Your task to perform on an android device: turn on javascript in the chrome app Image 0: 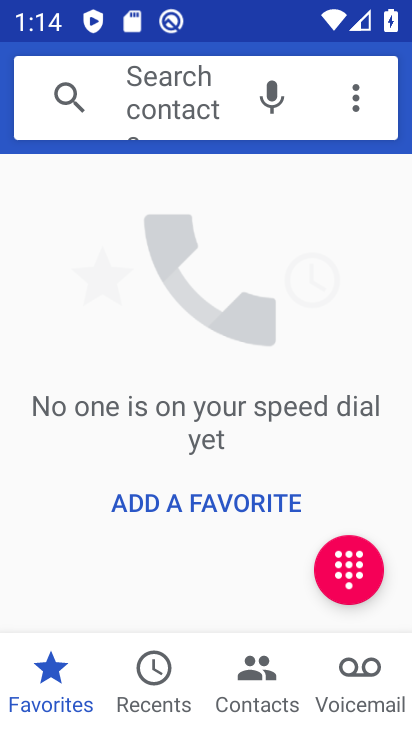
Step 0: press back button
Your task to perform on an android device: turn on javascript in the chrome app Image 1: 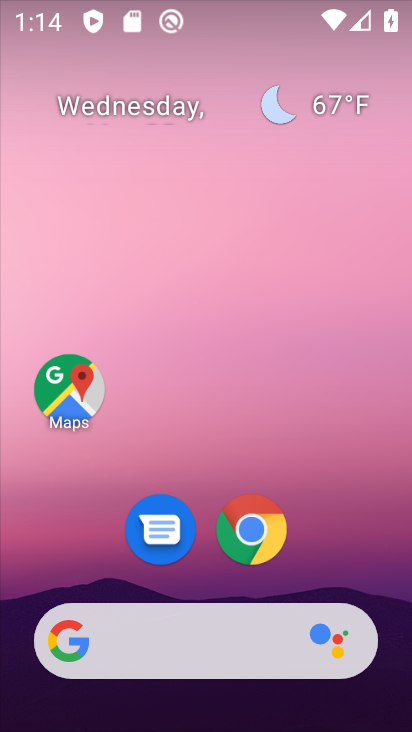
Step 1: click (254, 530)
Your task to perform on an android device: turn on javascript in the chrome app Image 2: 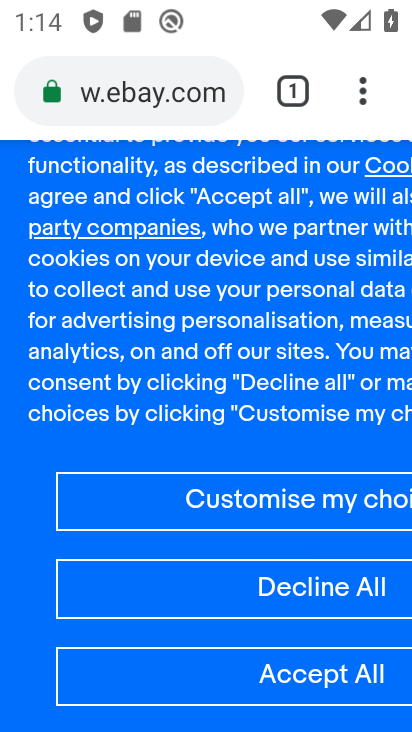
Step 2: click (362, 90)
Your task to perform on an android device: turn on javascript in the chrome app Image 3: 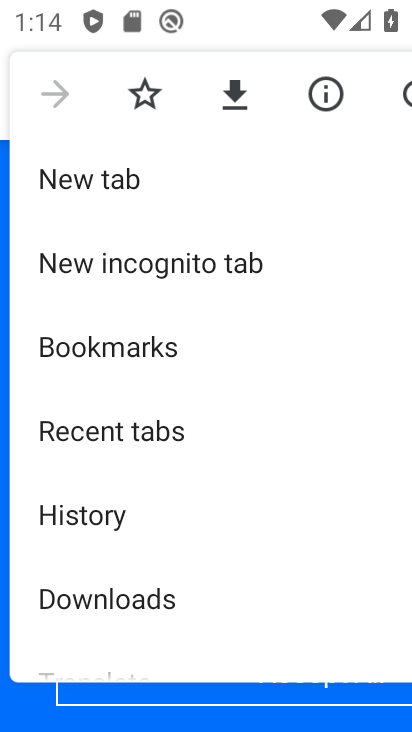
Step 3: drag from (130, 467) to (142, 377)
Your task to perform on an android device: turn on javascript in the chrome app Image 4: 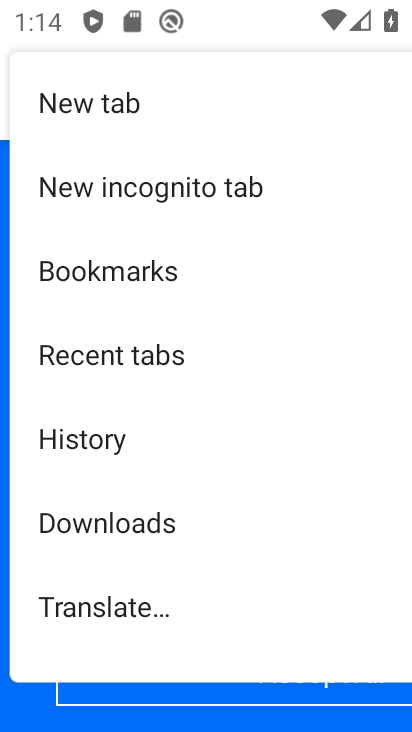
Step 4: drag from (99, 477) to (127, 392)
Your task to perform on an android device: turn on javascript in the chrome app Image 5: 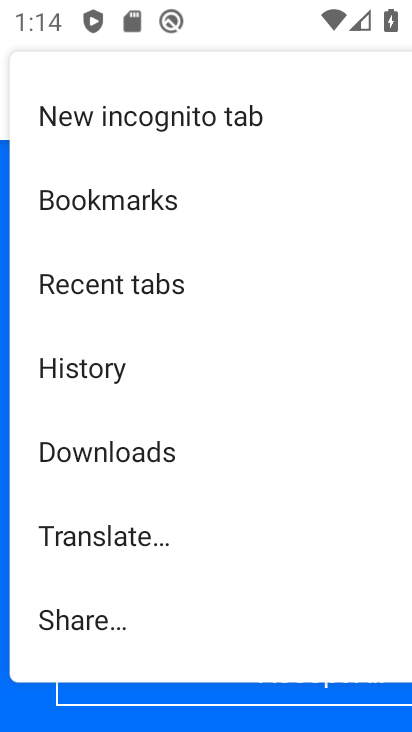
Step 5: drag from (93, 480) to (124, 407)
Your task to perform on an android device: turn on javascript in the chrome app Image 6: 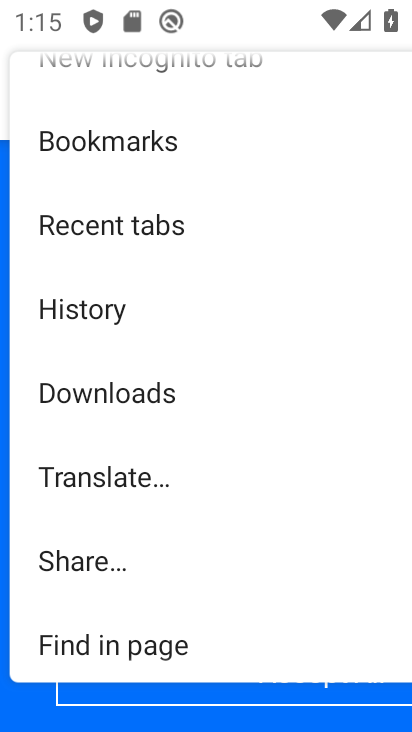
Step 6: drag from (89, 514) to (133, 431)
Your task to perform on an android device: turn on javascript in the chrome app Image 7: 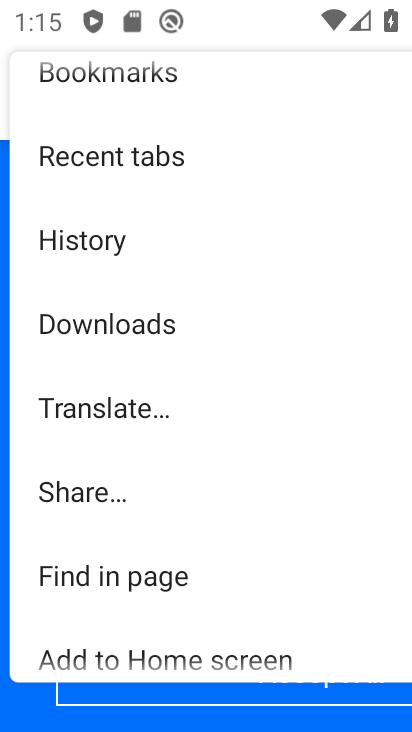
Step 7: drag from (101, 534) to (140, 451)
Your task to perform on an android device: turn on javascript in the chrome app Image 8: 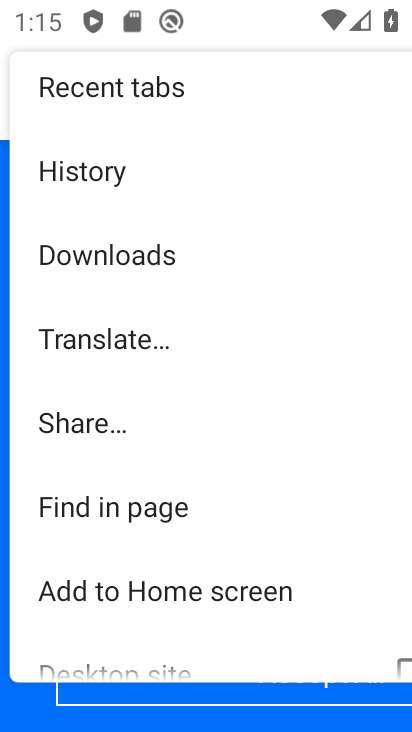
Step 8: drag from (89, 540) to (139, 442)
Your task to perform on an android device: turn on javascript in the chrome app Image 9: 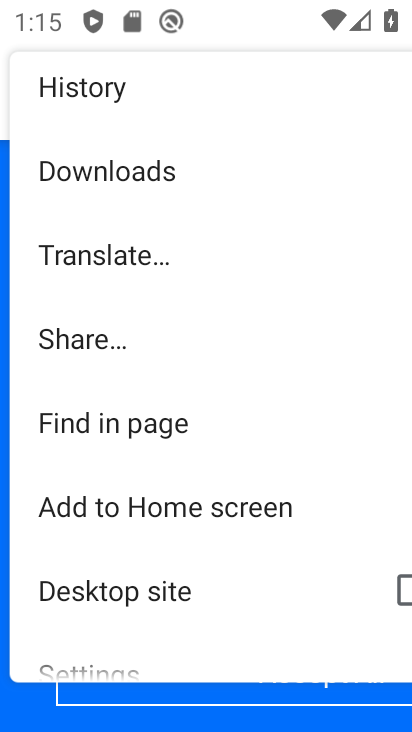
Step 9: drag from (89, 547) to (171, 440)
Your task to perform on an android device: turn on javascript in the chrome app Image 10: 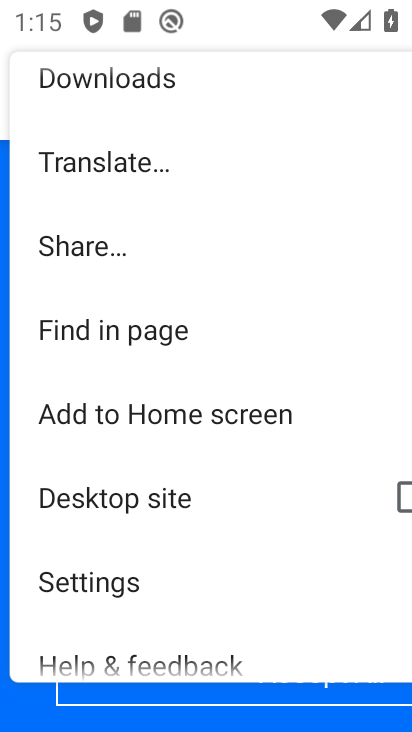
Step 10: click (105, 585)
Your task to perform on an android device: turn on javascript in the chrome app Image 11: 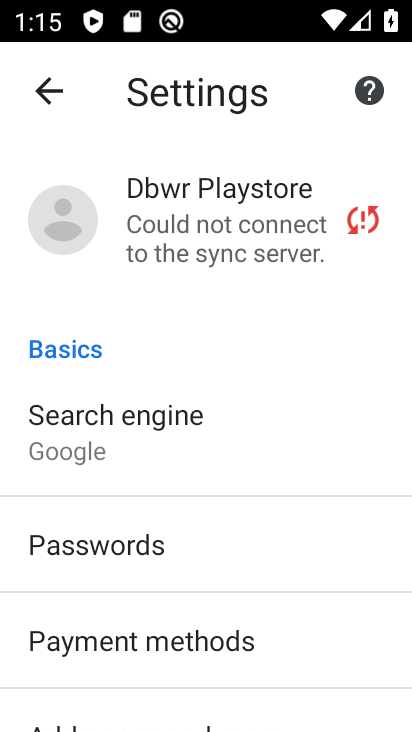
Step 11: drag from (197, 564) to (237, 476)
Your task to perform on an android device: turn on javascript in the chrome app Image 12: 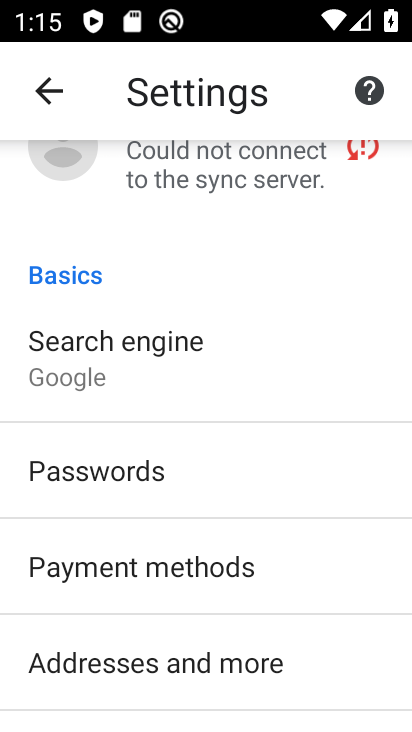
Step 12: drag from (157, 602) to (200, 511)
Your task to perform on an android device: turn on javascript in the chrome app Image 13: 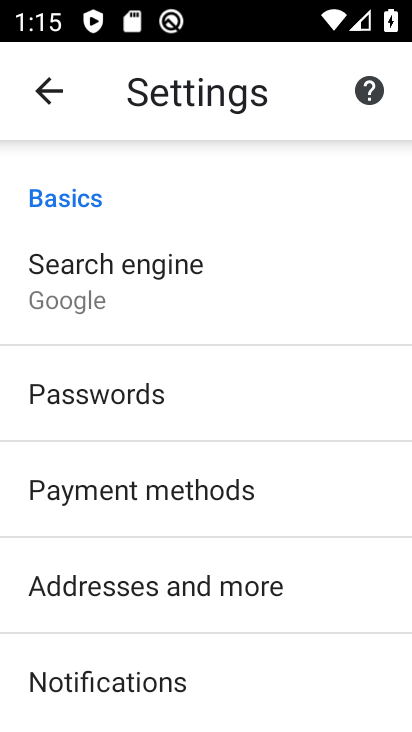
Step 13: drag from (148, 615) to (189, 541)
Your task to perform on an android device: turn on javascript in the chrome app Image 14: 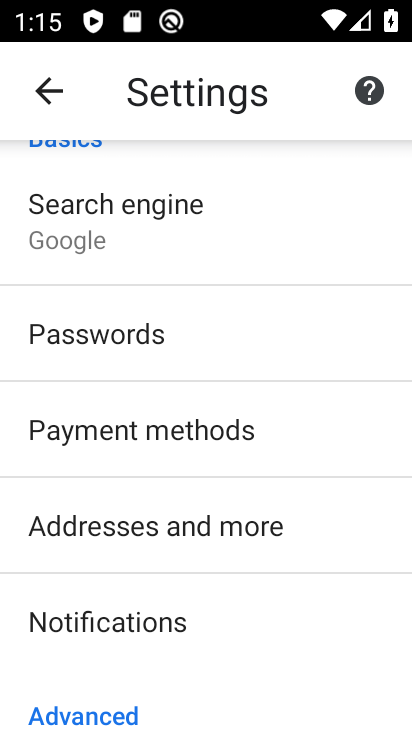
Step 14: drag from (207, 641) to (222, 544)
Your task to perform on an android device: turn on javascript in the chrome app Image 15: 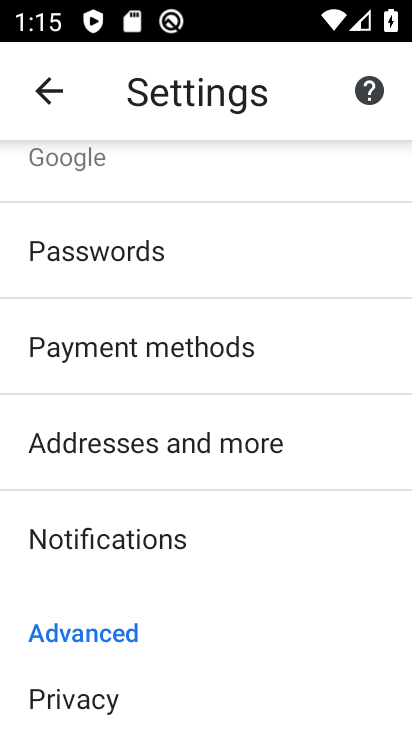
Step 15: drag from (142, 657) to (178, 560)
Your task to perform on an android device: turn on javascript in the chrome app Image 16: 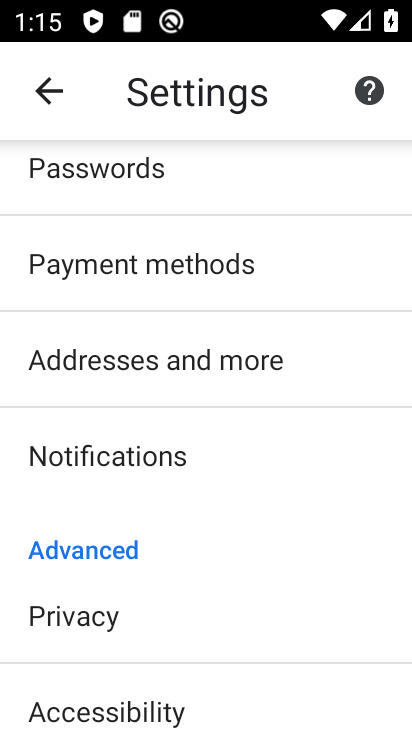
Step 16: drag from (147, 651) to (197, 573)
Your task to perform on an android device: turn on javascript in the chrome app Image 17: 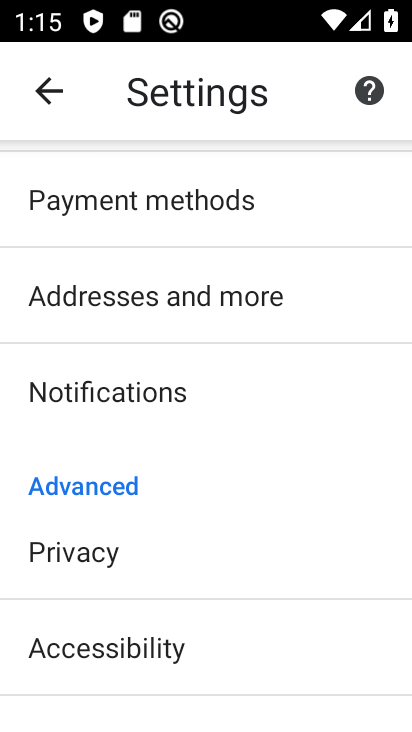
Step 17: drag from (199, 667) to (248, 555)
Your task to perform on an android device: turn on javascript in the chrome app Image 18: 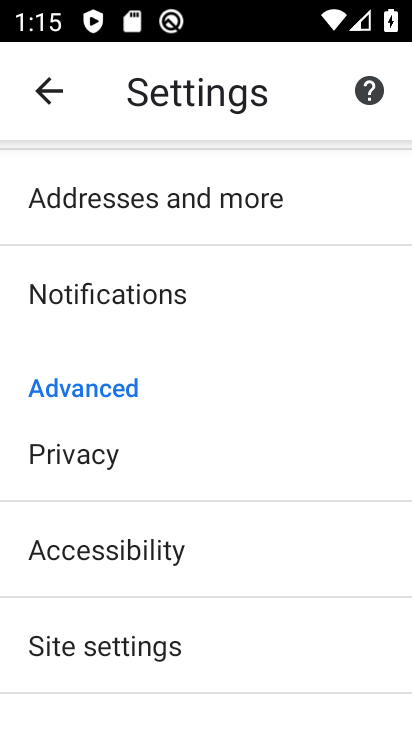
Step 18: click (135, 648)
Your task to perform on an android device: turn on javascript in the chrome app Image 19: 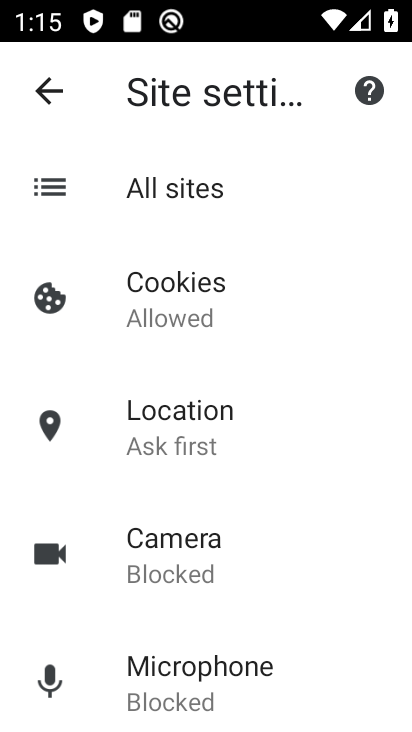
Step 19: drag from (185, 611) to (251, 505)
Your task to perform on an android device: turn on javascript in the chrome app Image 20: 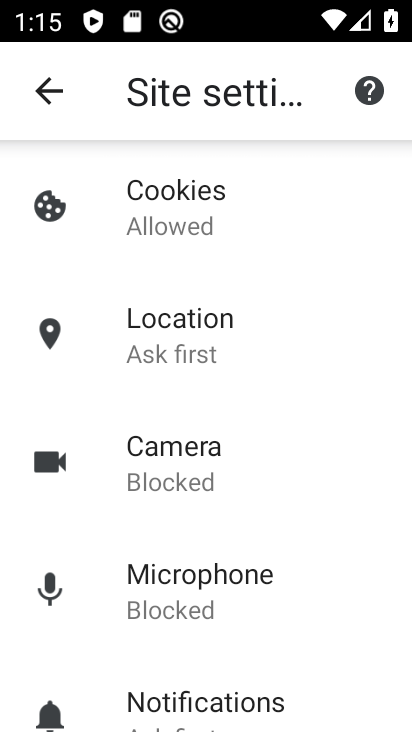
Step 20: drag from (170, 634) to (208, 532)
Your task to perform on an android device: turn on javascript in the chrome app Image 21: 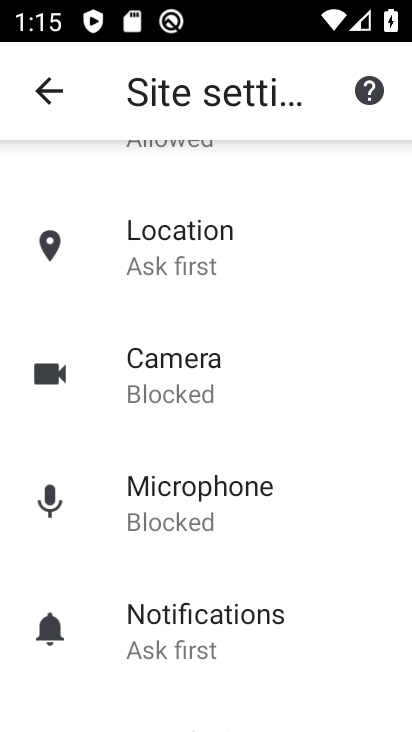
Step 21: drag from (191, 664) to (248, 545)
Your task to perform on an android device: turn on javascript in the chrome app Image 22: 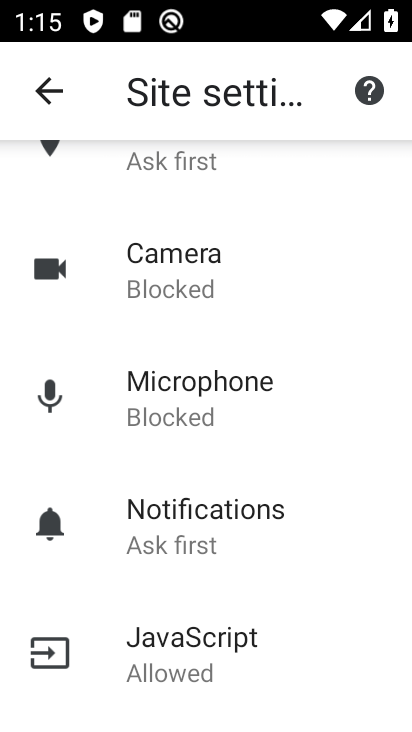
Step 22: click (197, 641)
Your task to perform on an android device: turn on javascript in the chrome app Image 23: 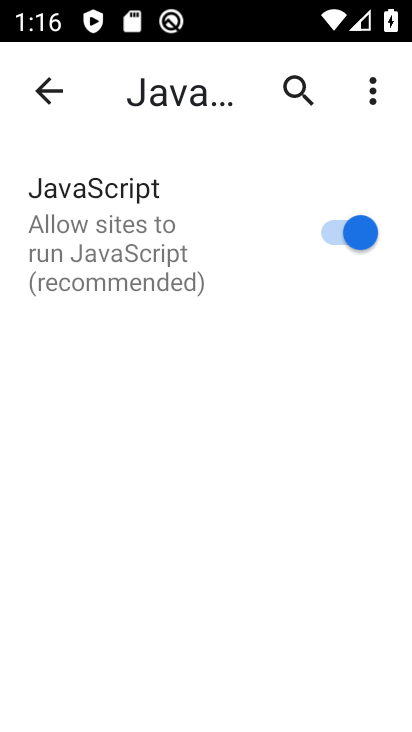
Step 23: task complete